Your task to perform on an android device: toggle priority inbox in the gmail app Image 0: 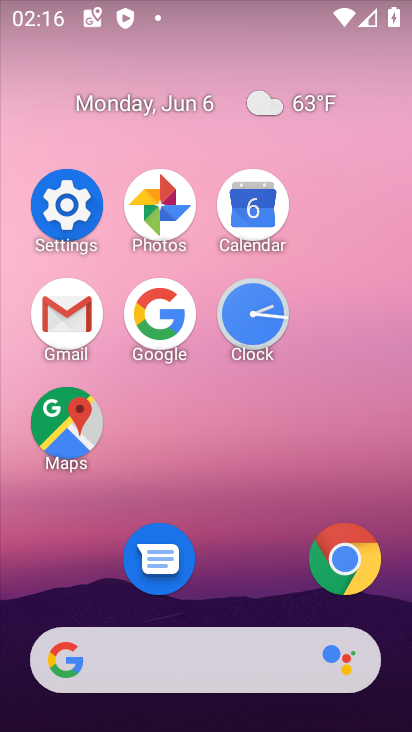
Step 0: click (77, 318)
Your task to perform on an android device: toggle priority inbox in the gmail app Image 1: 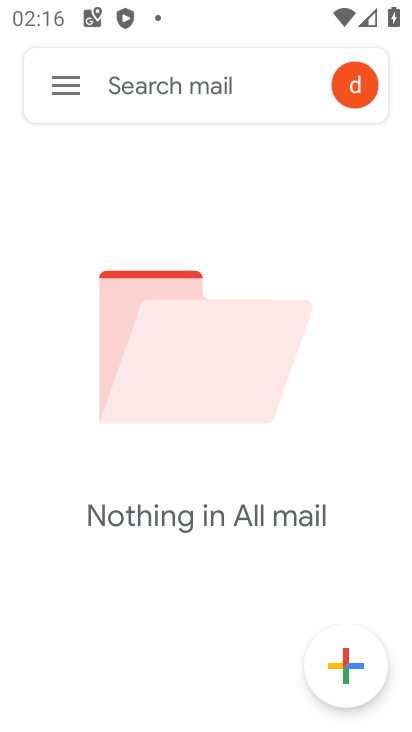
Step 1: click (54, 90)
Your task to perform on an android device: toggle priority inbox in the gmail app Image 2: 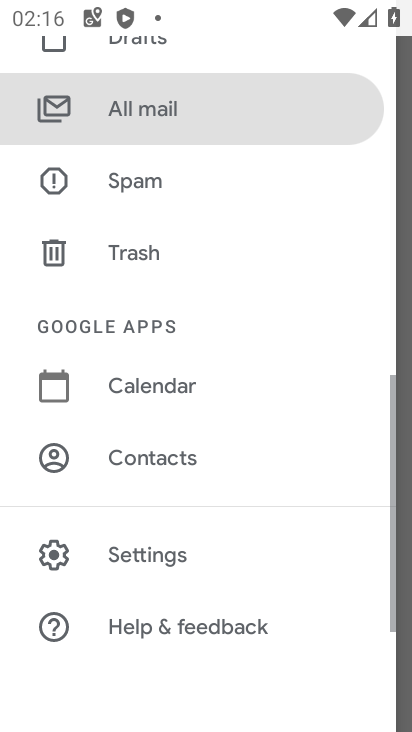
Step 2: click (130, 562)
Your task to perform on an android device: toggle priority inbox in the gmail app Image 3: 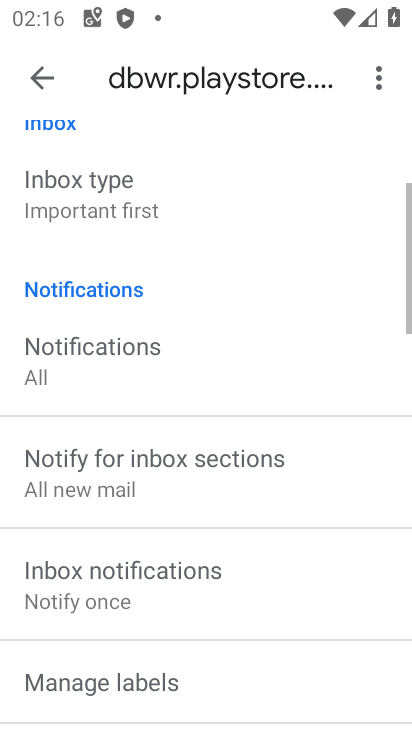
Step 3: drag from (128, 538) to (216, 184)
Your task to perform on an android device: toggle priority inbox in the gmail app Image 4: 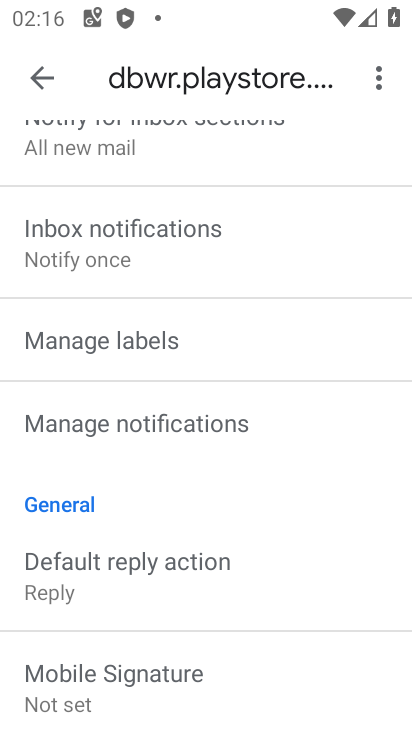
Step 4: drag from (187, 628) to (249, 194)
Your task to perform on an android device: toggle priority inbox in the gmail app Image 5: 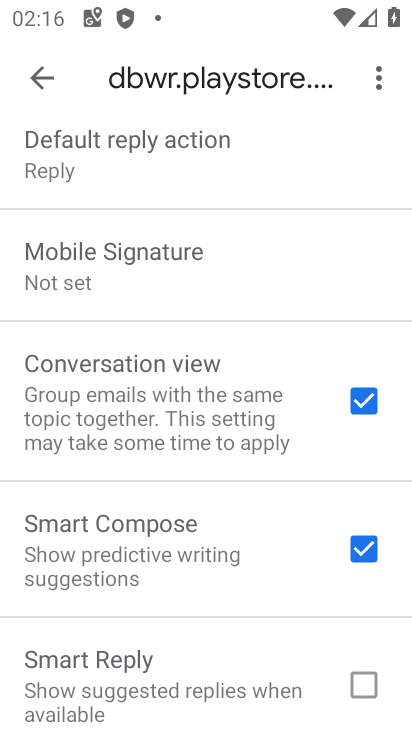
Step 5: drag from (248, 219) to (206, 609)
Your task to perform on an android device: toggle priority inbox in the gmail app Image 6: 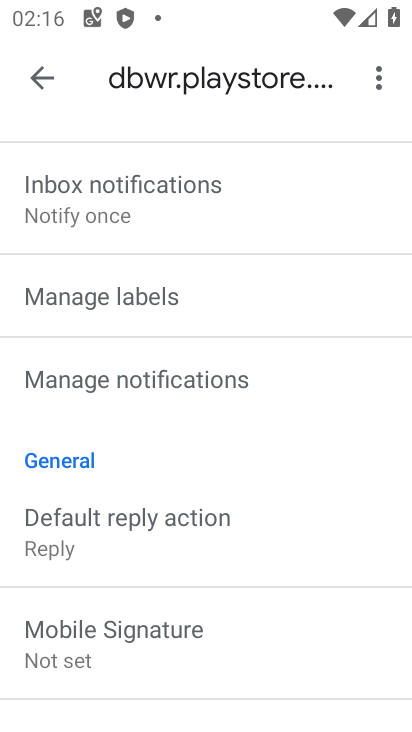
Step 6: drag from (285, 241) to (225, 610)
Your task to perform on an android device: toggle priority inbox in the gmail app Image 7: 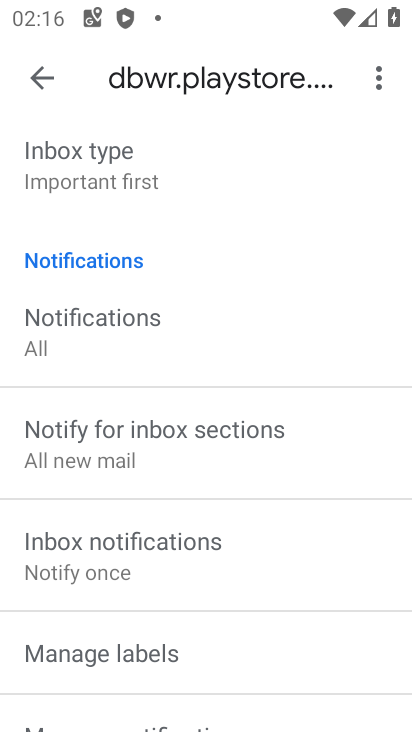
Step 7: click (213, 187)
Your task to perform on an android device: toggle priority inbox in the gmail app Image 8: 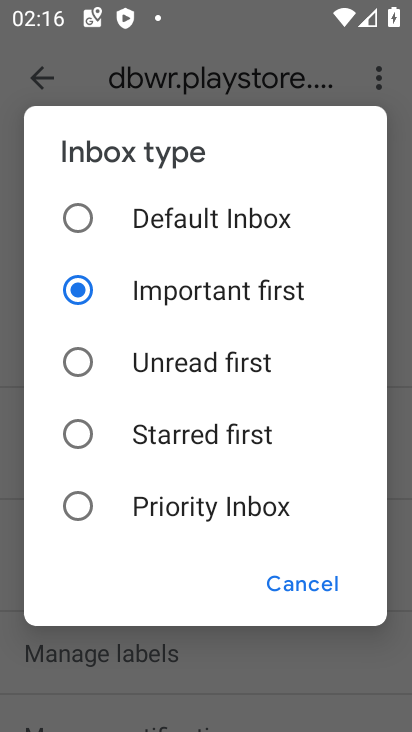
Step 8: click (190, 225)
Your task to perform on an android device: toggle priority inbox in the gmail app Image 9: 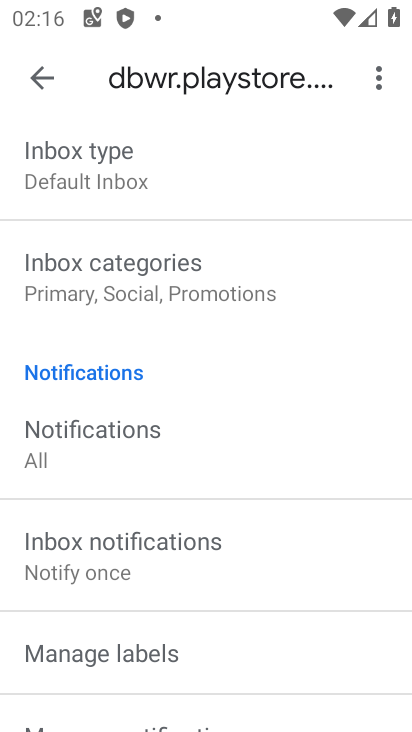
Step 9: task complete